Your task to perform on an android device: Check the news Image 0: 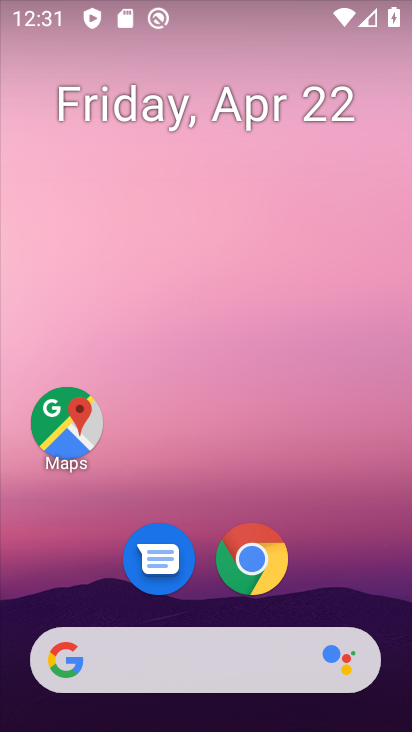
Step 0: drag from (58, 214) to (407, 459)
Your task to perform on an android device: Check the news Image 1: 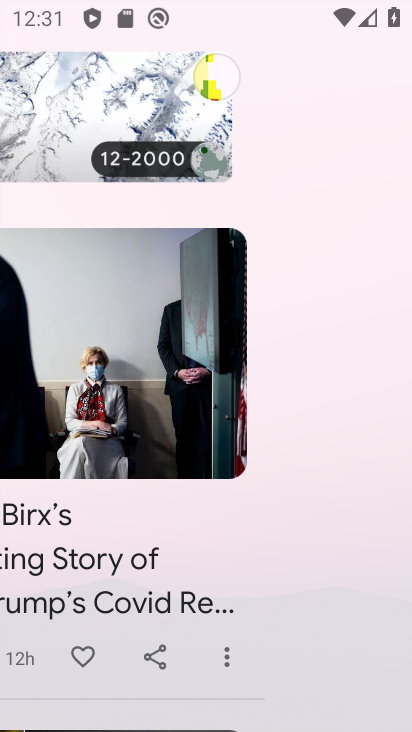
Step 1: click (253, 503)
Your task to perform on an android device: Check the news Image 2: 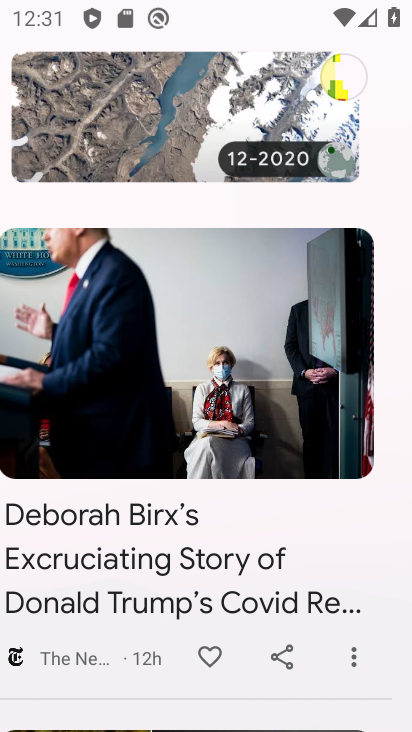
Step 2: task complete